Your task to perform on an android device: Go to location settings Image 0: 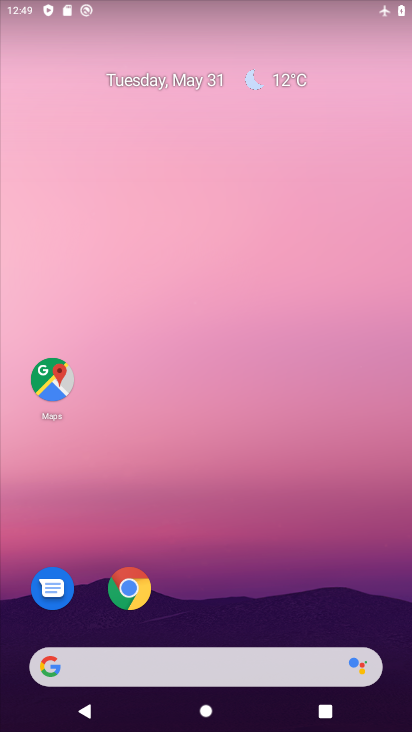
Step 0: drag from (390, 658) to (363, 262)
Your task to perform on an android device: Go to location settings Image 1: 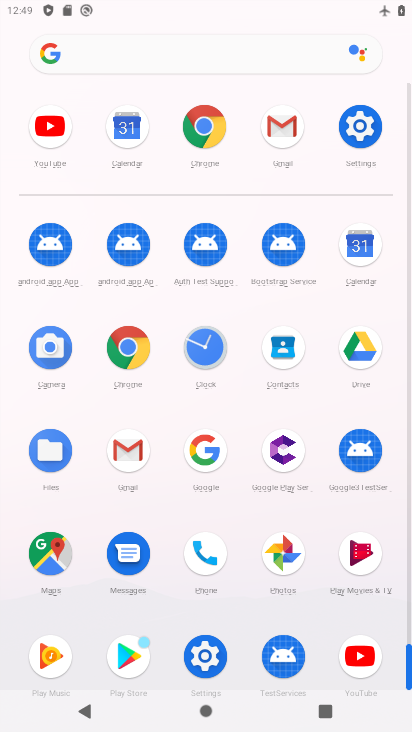
Step 1: click (372, 134)
Your task to perform on an android device: Go to location settings Image 2: 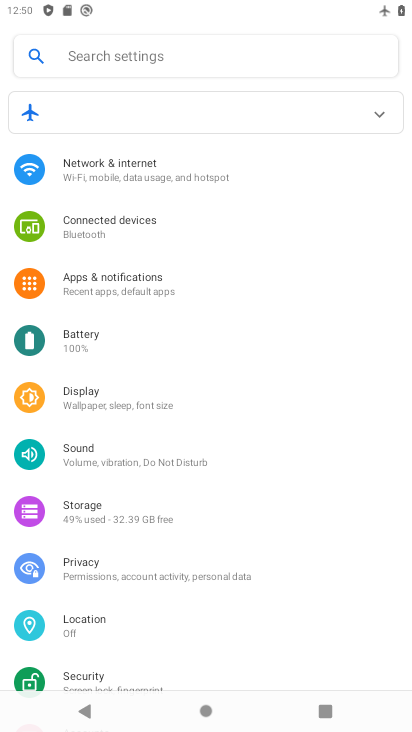
Step 2: click (88, 625)
Your task to perform on an android device: Go to location settings Image 3: 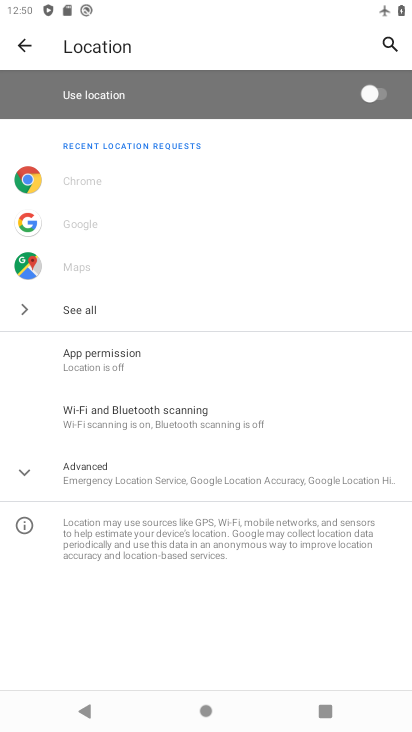
Step 3: click (380, 93)
Your task to perform on an android device: Go to location settings Image 4: 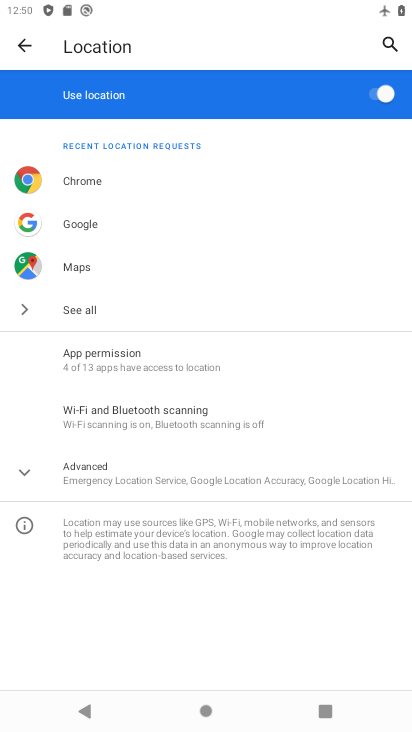
Step 4: click (371, 96)
Your task to perform on an android device: Go to location settings Image 5: 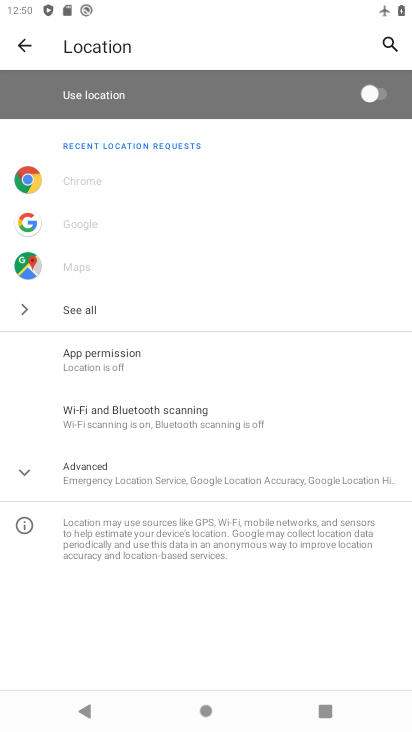
Step 5: click (21, 482)
Your task to perform on an android device: Go to location settings Image 6: 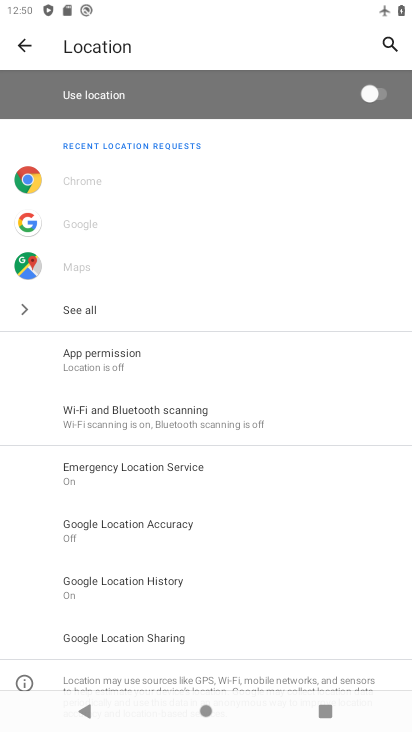
Step 6: task complete